Your task to perform on an android device: check out phone information Image 0: 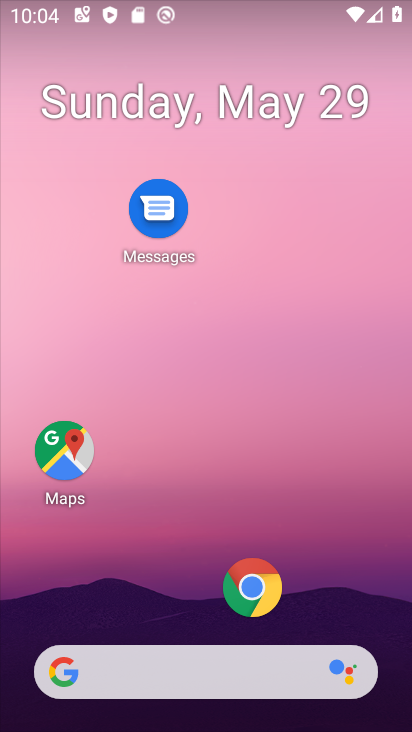
Step 0: drag from (132, 611) to (243, 150)
Your task to perform on an android device: check out phone information Image 1: 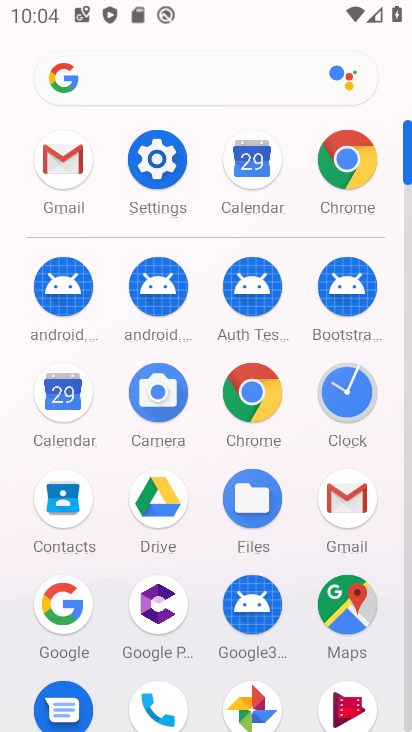
Step 1: click (155, 138)
Your task to perform on an android device: check out phone information Image 2: 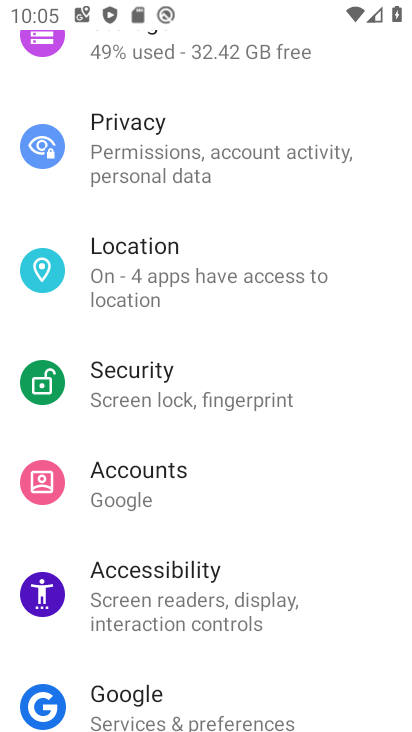
Step 2: drag from (194, 692) to (337, 0)
Your task to perform on an android device: check out phone information Image 3: 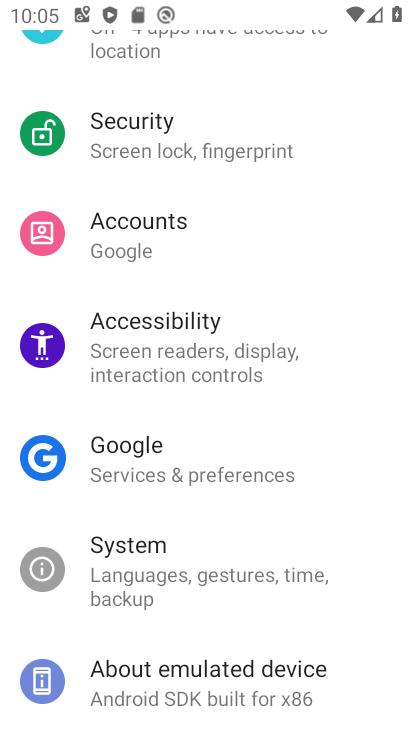
Step 3: click (193, 700)
Your task to perform on an android device: check out phone information Image 4: 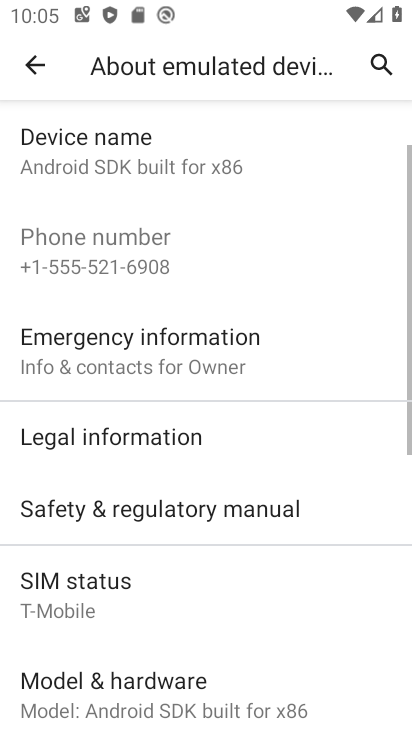
Step 4: task complete